Your task to perform on an android device: toggle wifi Image 0: 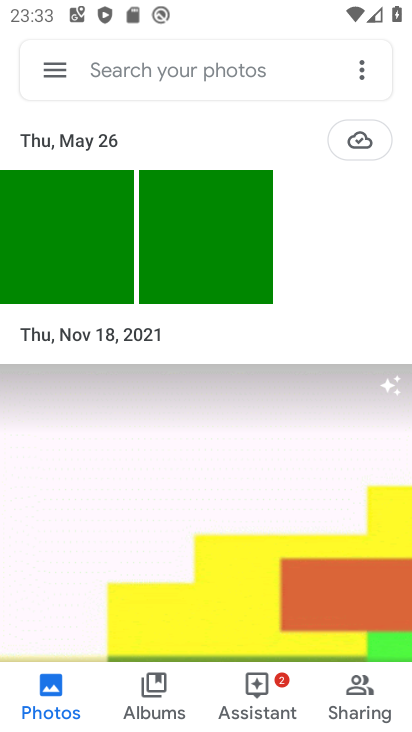
Step 0: press home button
Your task to perform on an android device: toggle wifi Image 1: 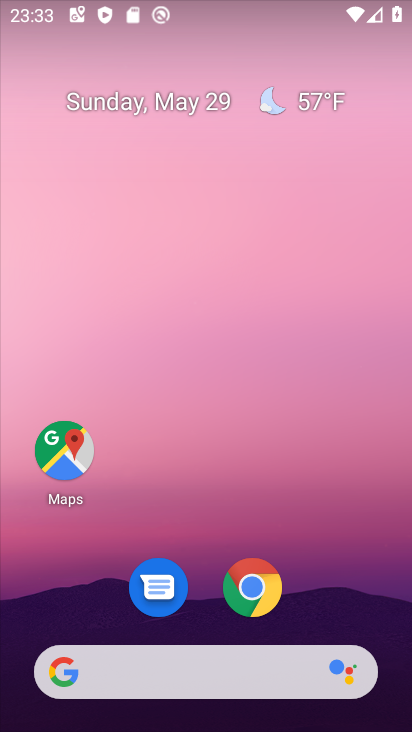
Step 1: drag from (394, 616) to (294, 142)
Your task to perform on an android device: toggle wifi Image 2: 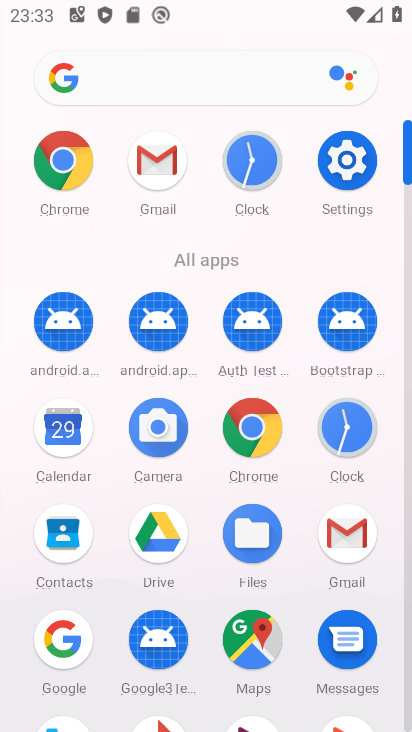
Step 2: click (334, 168)
Your task to perform on an android device: toggle wifi Image 3: 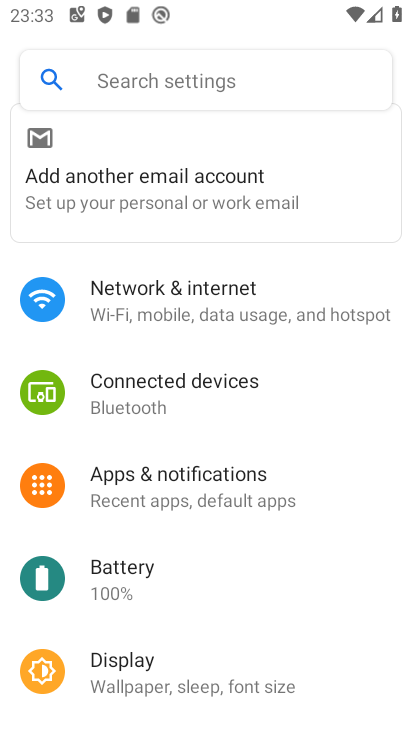
Step 3: click (297, 295)
Your task to perform on an android device: toggle wifi Image 4: 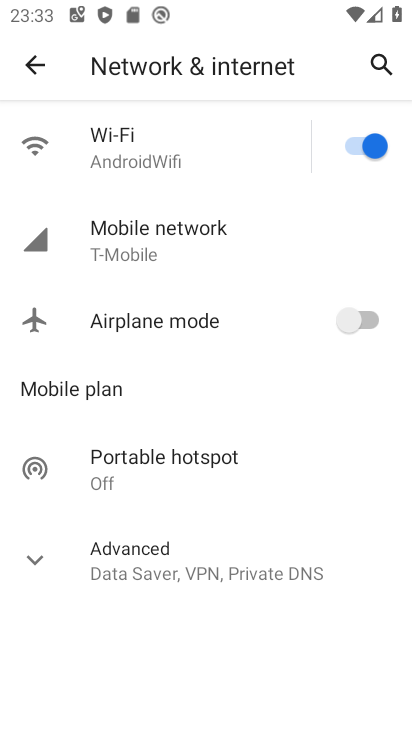
Step 4: click (361, 143)
Your task to perform on an android device: toggle wifi Image 5: 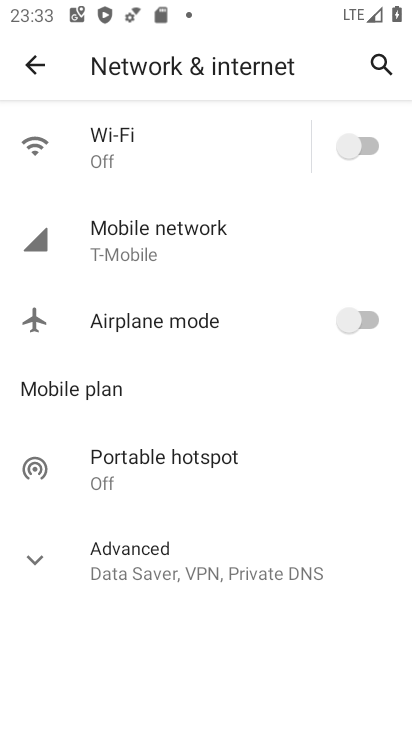
Step 5: task complete